Your task to perform on an android device: toggle notifications settings in the gmail app Image 0: 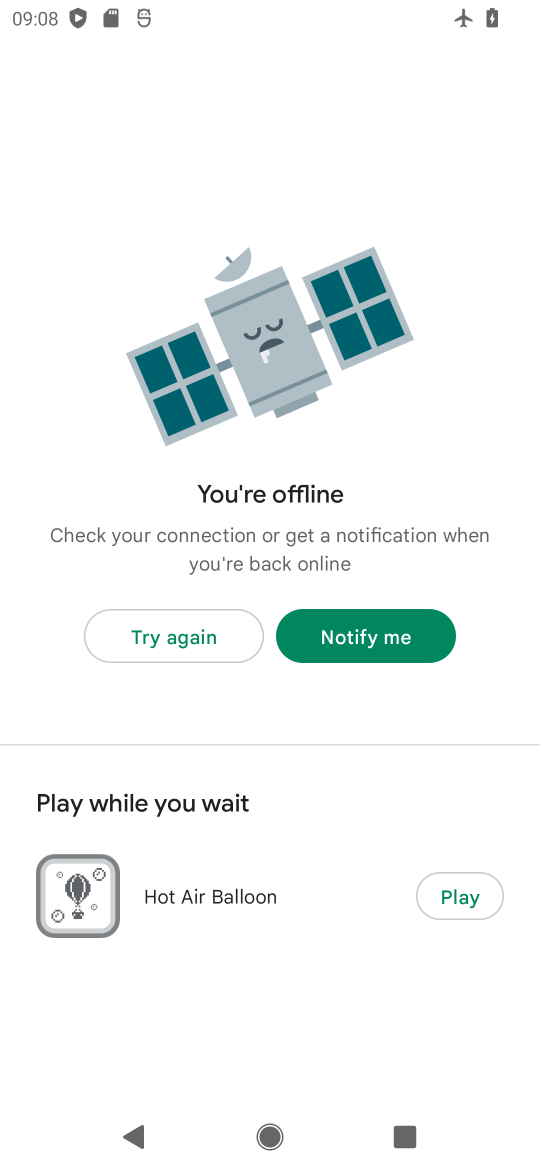
Step 0: press home button
Your task to perform on an android device: toggle notifications settings in the gmail app Image 1: 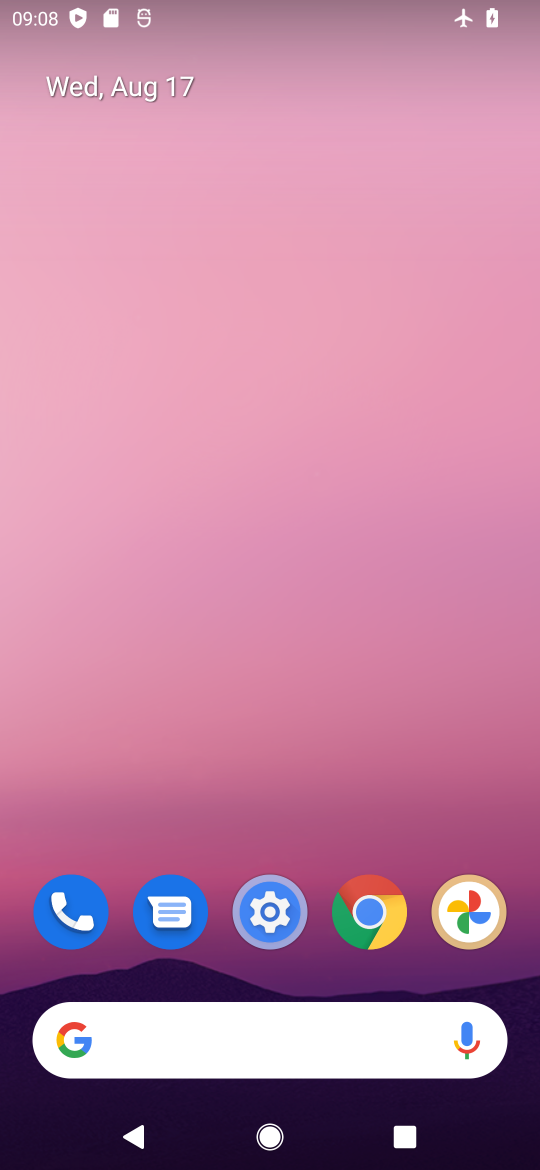
Step 1: drag from (296, 880) to (327, 338)
Your task to perform on an android device: toggle notifications settings in the gmail app Image 2: 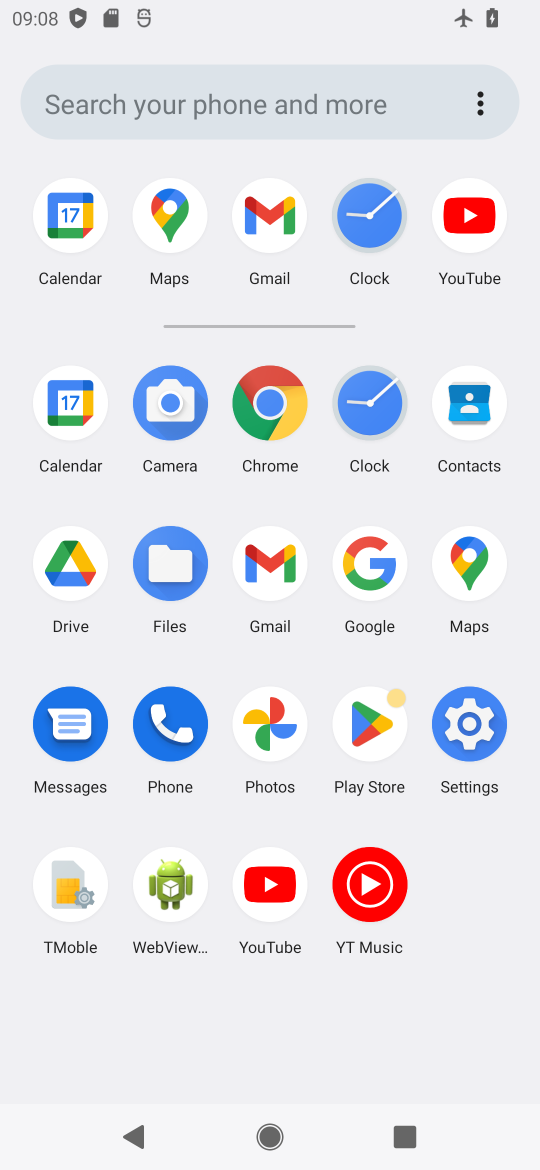
Step 2: click (270, 576)
Your task to perform on an android device: toggle notifications settings in the gmail app Image 3: 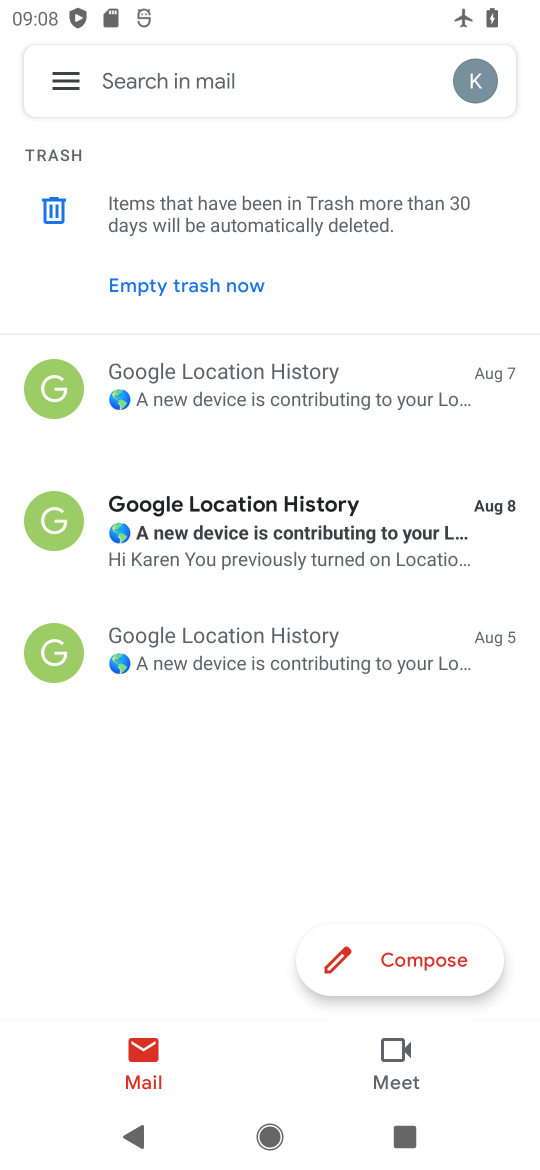
Step 3: click (46, 66)
Your task to perform on an android device: toggle notifications settings in the gmail app Image 4: 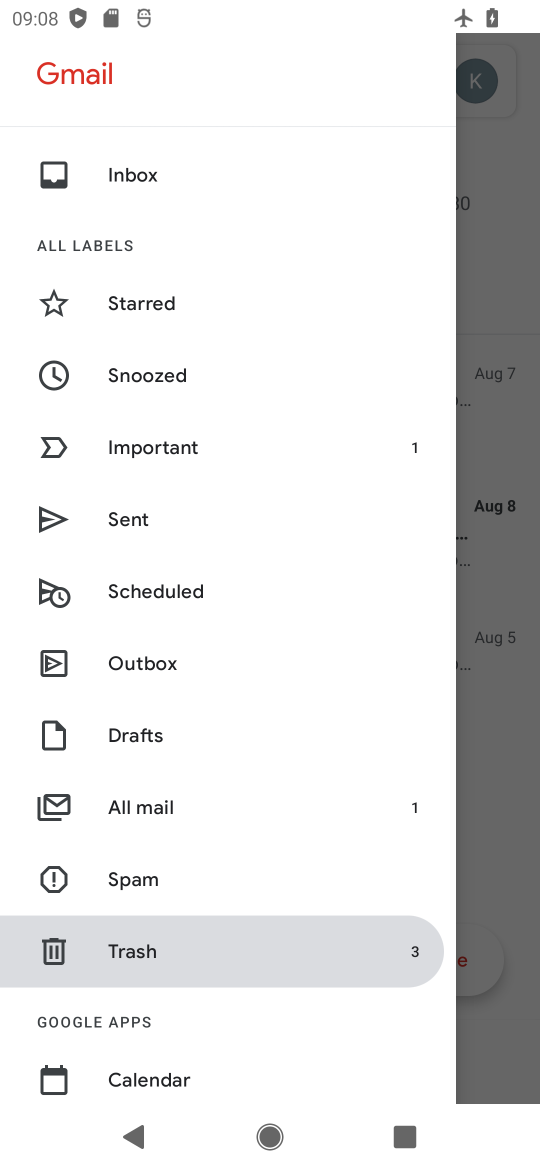
Step 4: drag from (145, 1062) to (149, 496)
Your task to perform on an android device: toggle notifications settings in the gmail app Image 5: 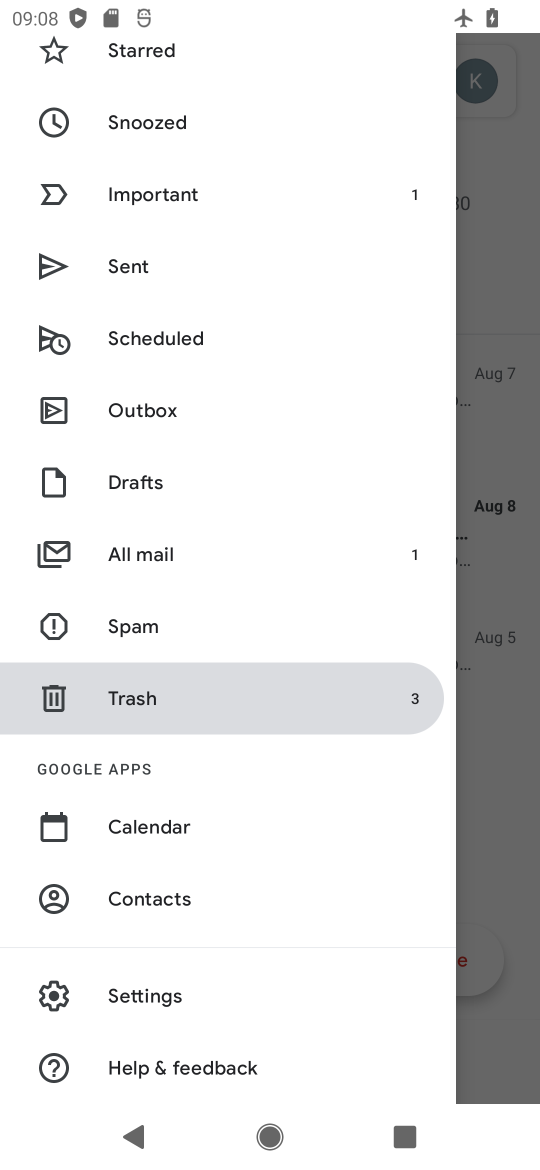
Step 5: click (152, 1003)
Your task to perform on an android device: toggle notifications settings in the gmail app Image 6: 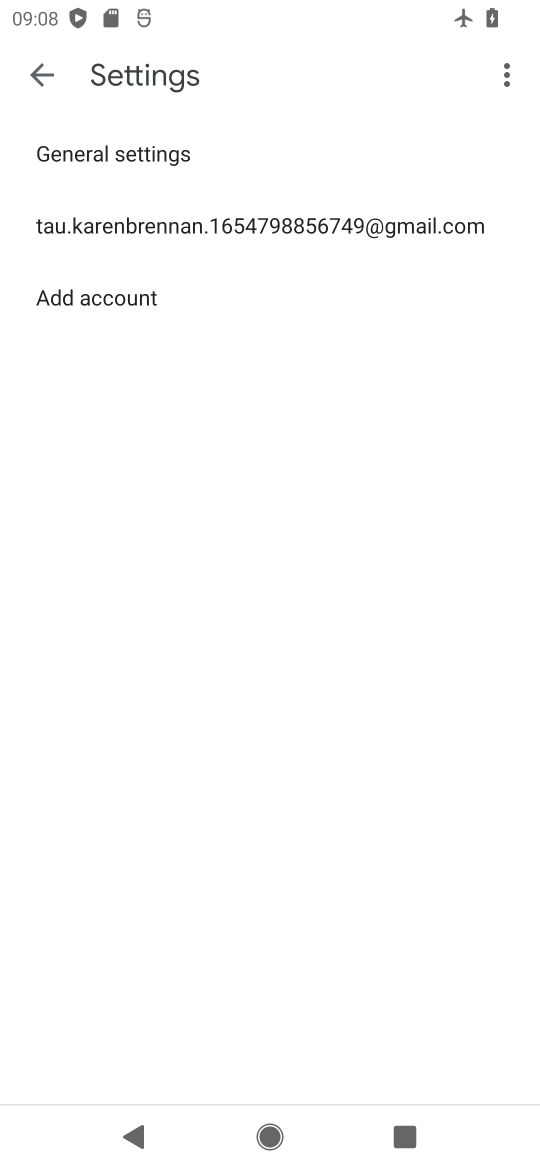
Step 6: click (116, 212)
Your task to perform on an android device: toggle notifications settings in the gmail app Image 7: 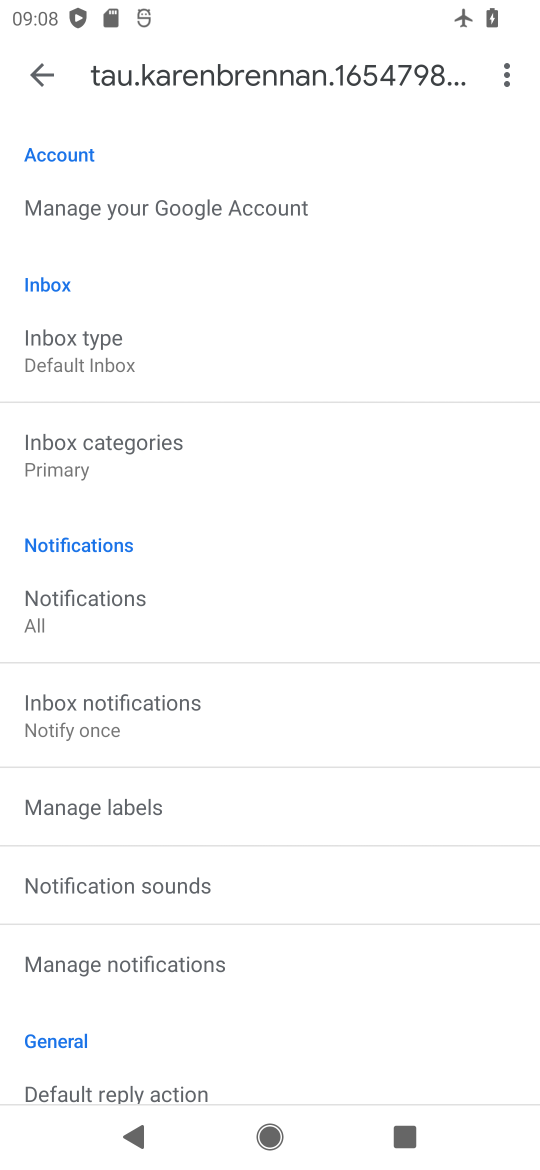
Step 7: click (112, 804)
Your task to perform on an android device: toggle notifications settings in the gmail app Image 8: 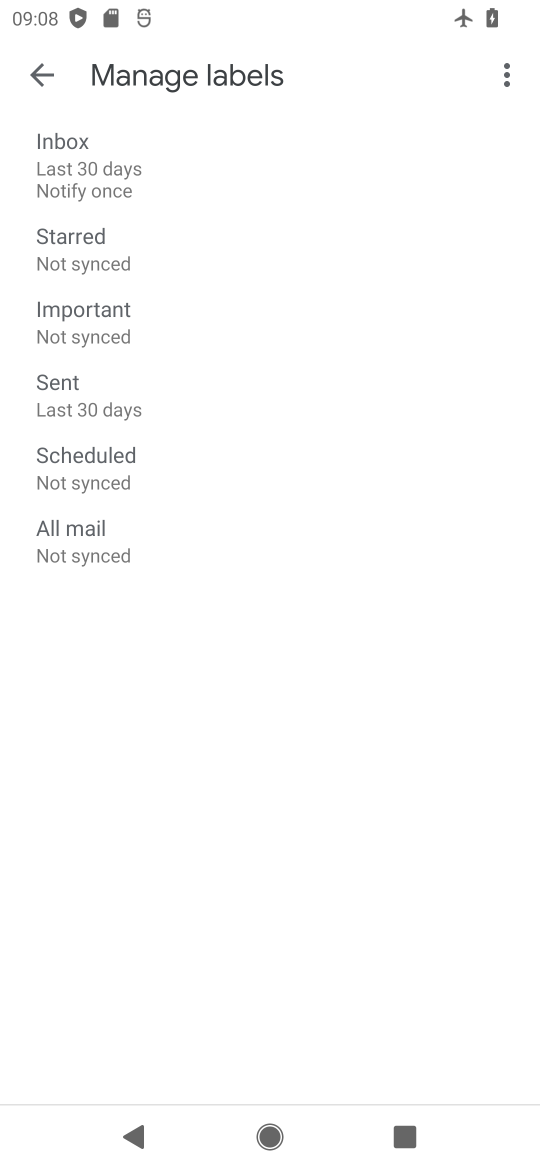
Step 8: click (42, 81)
Your task to perform on an android device: toggle notifications settings in the gmail app Image 9: 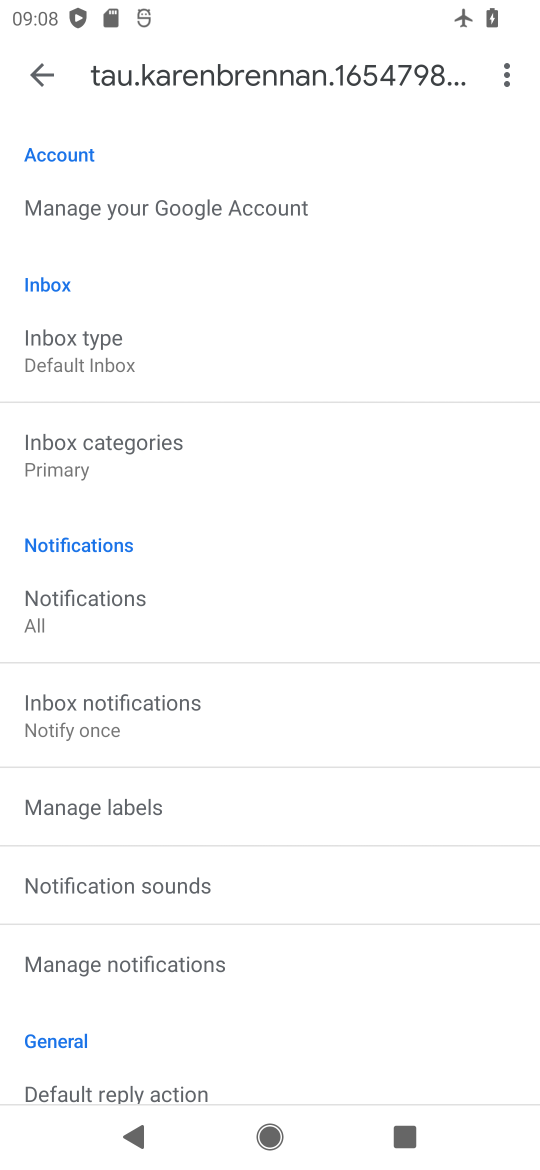
Step 9: click (119, 965)
Your task to perform on an android device: toggle notifications settings in the gmail app Image 10: 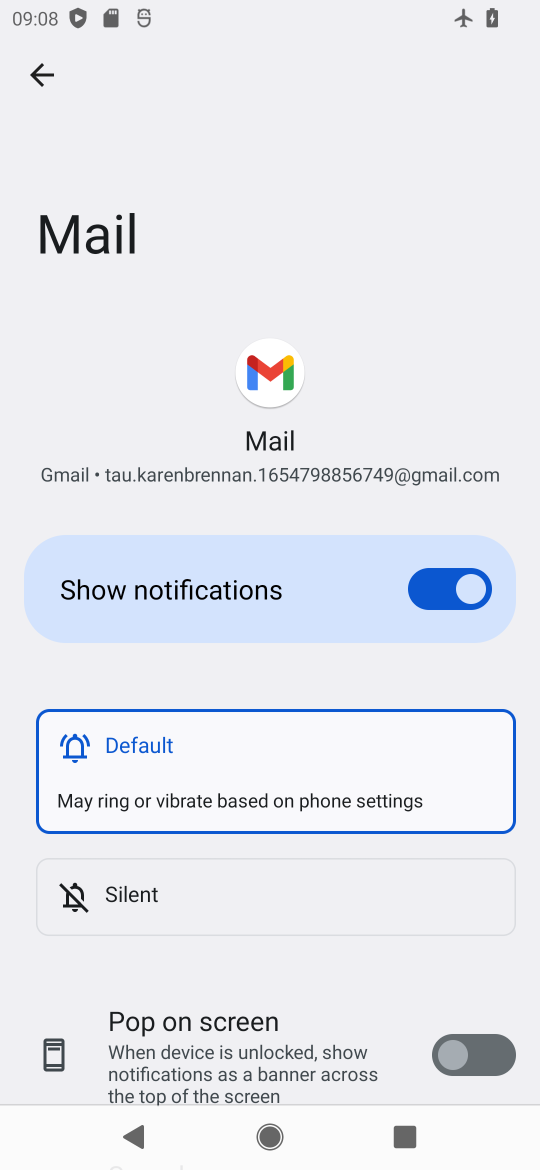
Step 10: click (419, 586)
Your task to perform on an android device: toggle notifications settings in the gmail app Image 11: 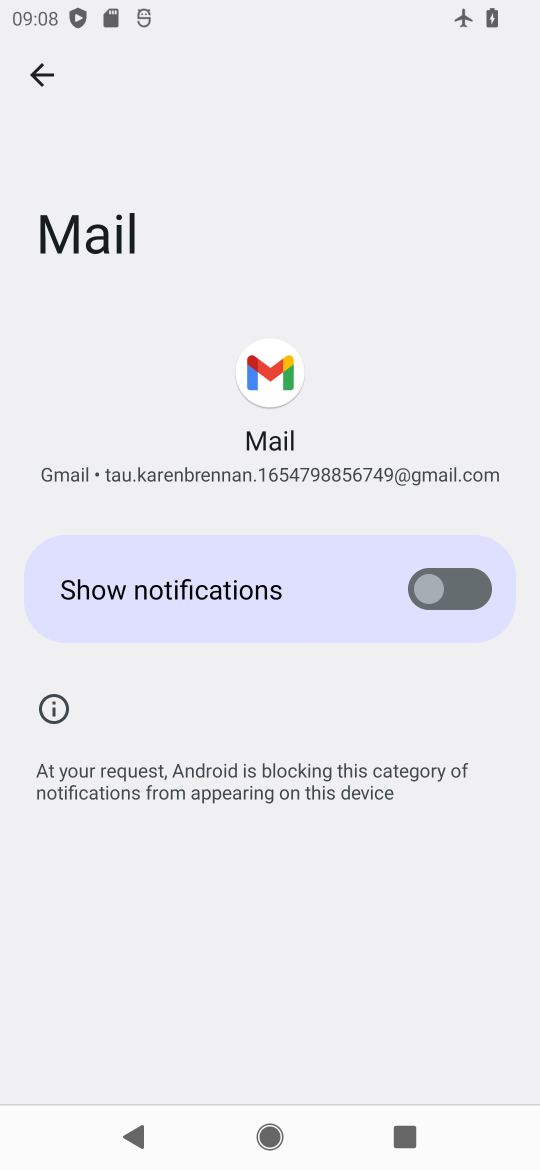
Step 11: task complete